Your task to perform on an android device: Empty the shopping cart on bestbuy. Image 0: 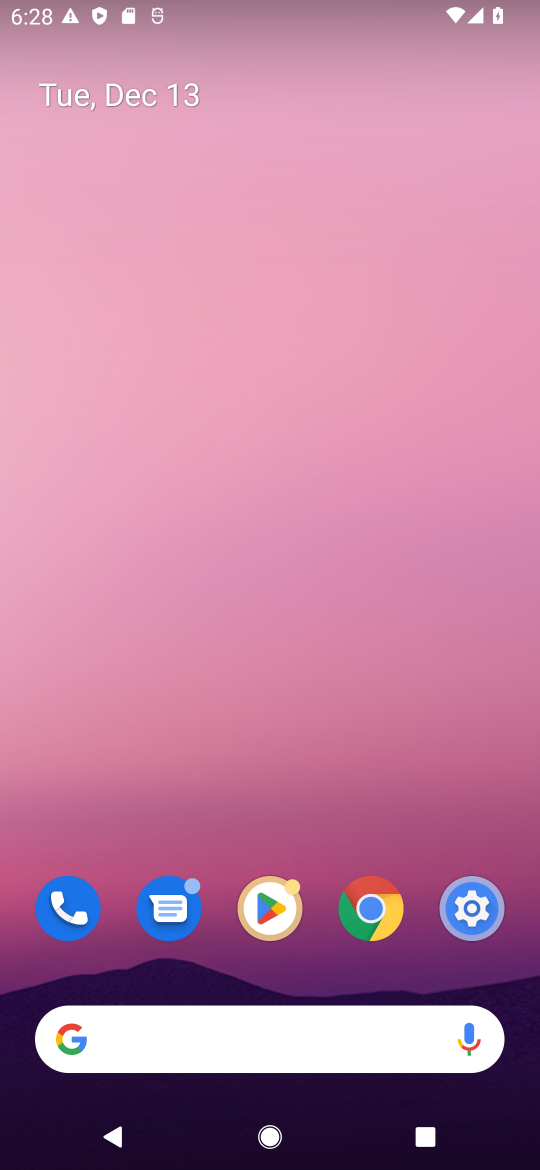
Step 0: press home button
Your task to perform on an android device: Empty the shopping cart on bestbuy. Image 1: 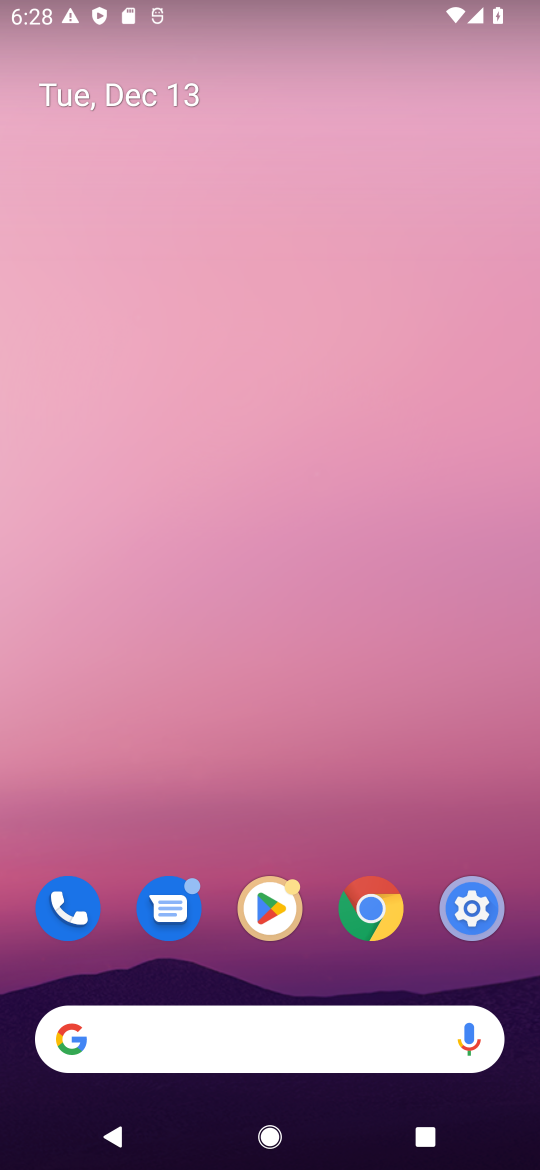
Step 1: click (100, 1037)
Your task to perform on an android device: Empty the shopping cart on bestbuy. Image 2: 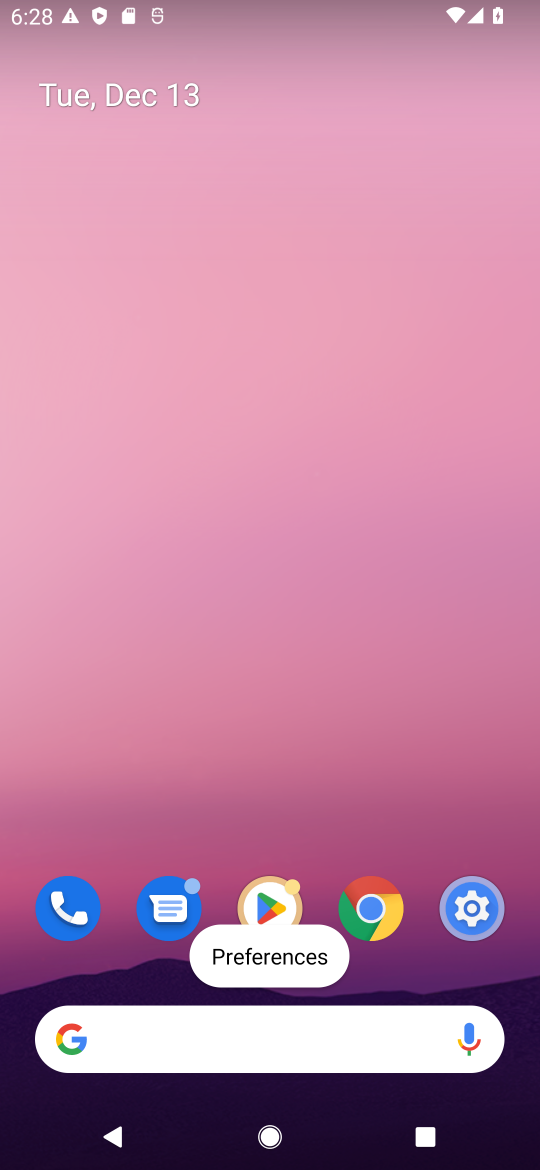
Step 2: click (102, 1031)
Your task to perform on an android device: Empty the shopping cart on bestbuy. Image 3: 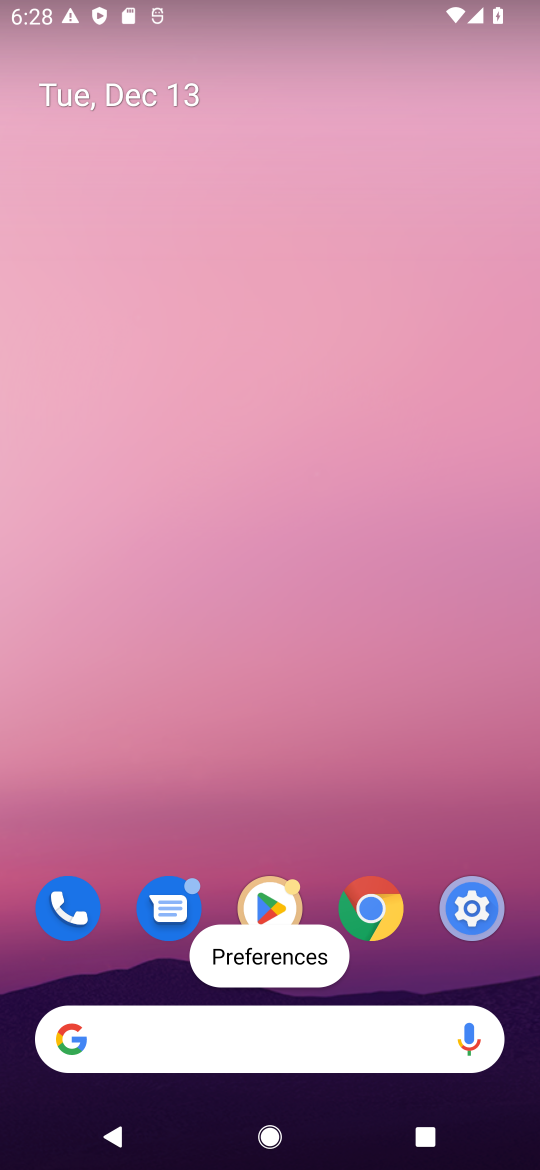
Step 3: click (113, 1037)
Your task to perform on an android device: Empty the shopping cart on bestbuy. Image 4: 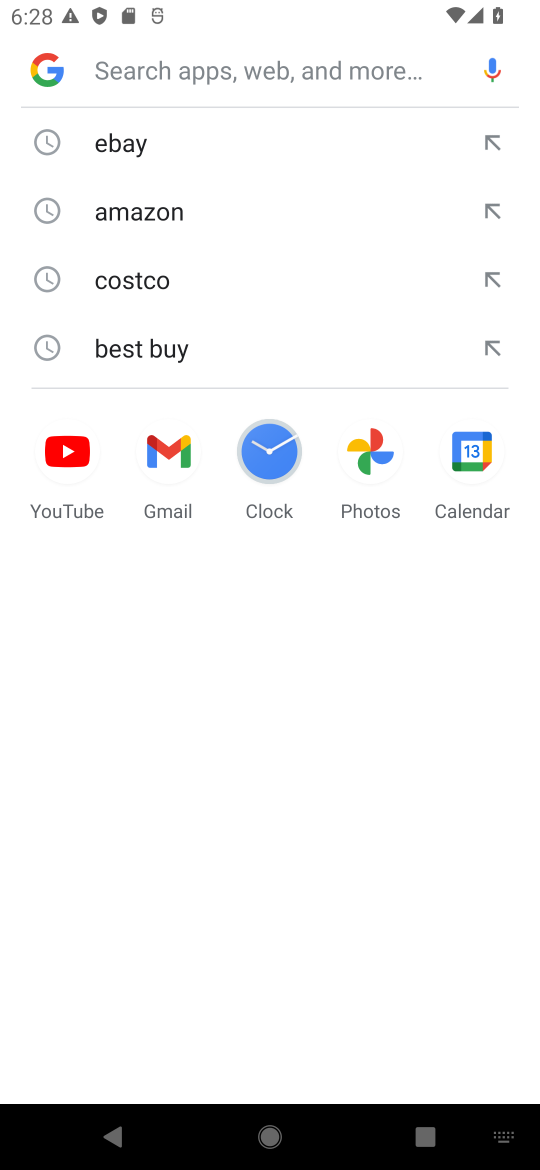
Step 4: type "bestbuy"
Your task to perform on an android device: Empty the shopping cart on bestbuy. Image 5: 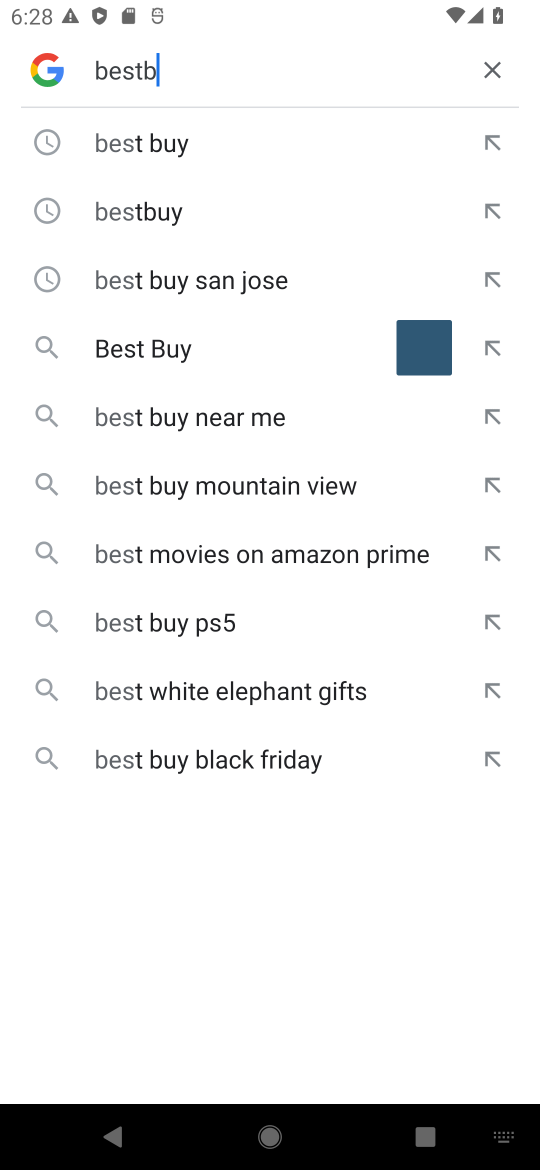
Step 5: press enter
Your task to perform on an android device: Empty the shopping cart on bestbuy. Image 6: 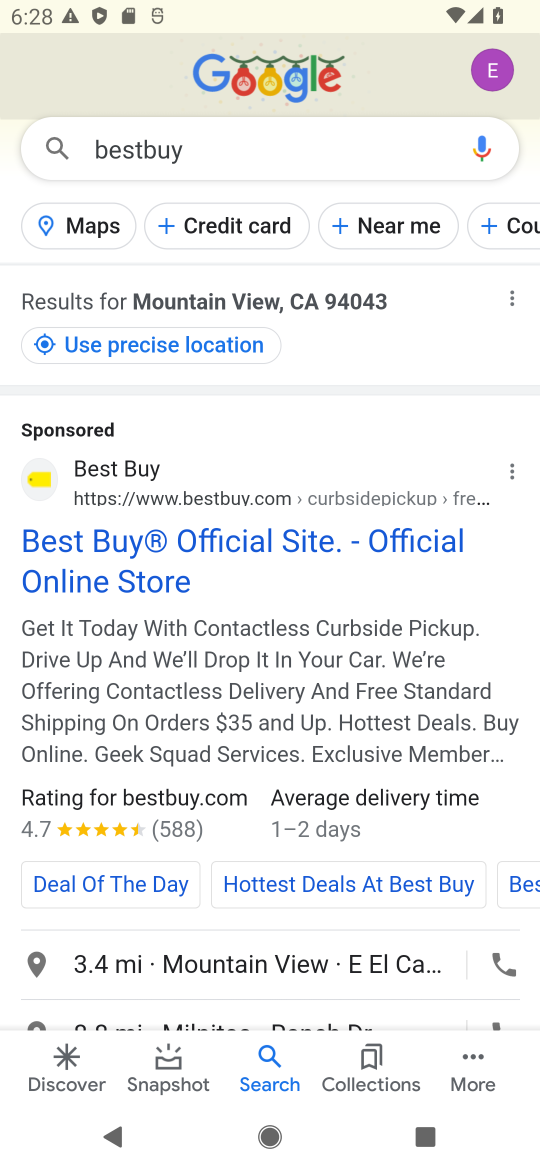
Step 6: click (126, 543)
Your task to perform on an android device: Empty the shopping cart on bestbuy. Image 7: 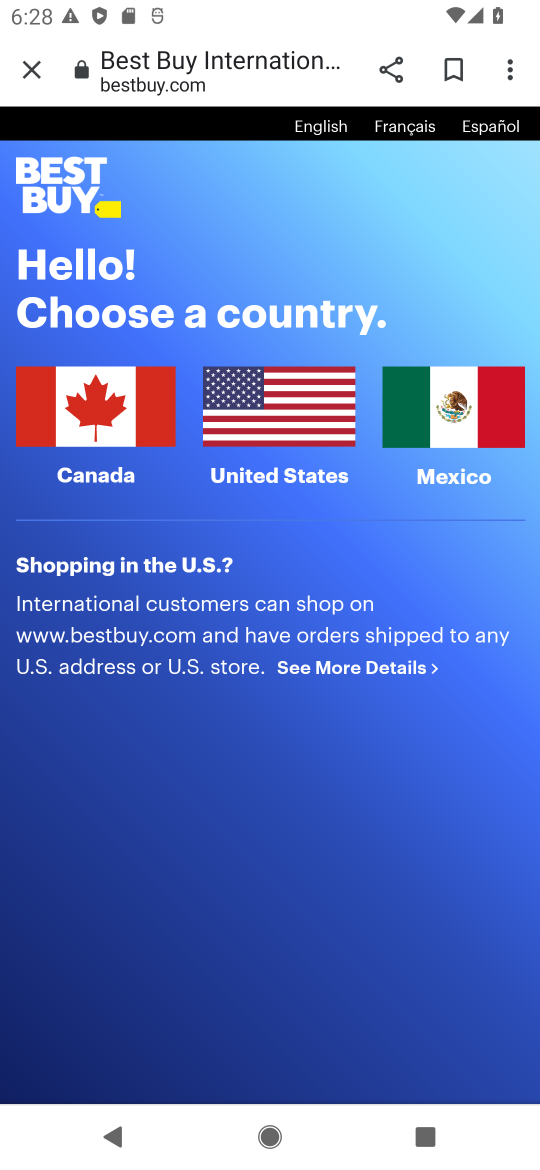
Step 7: click (83, 403)
Your task to perform on an android device: Empty the shopping cart on bestbuy. Image 8: 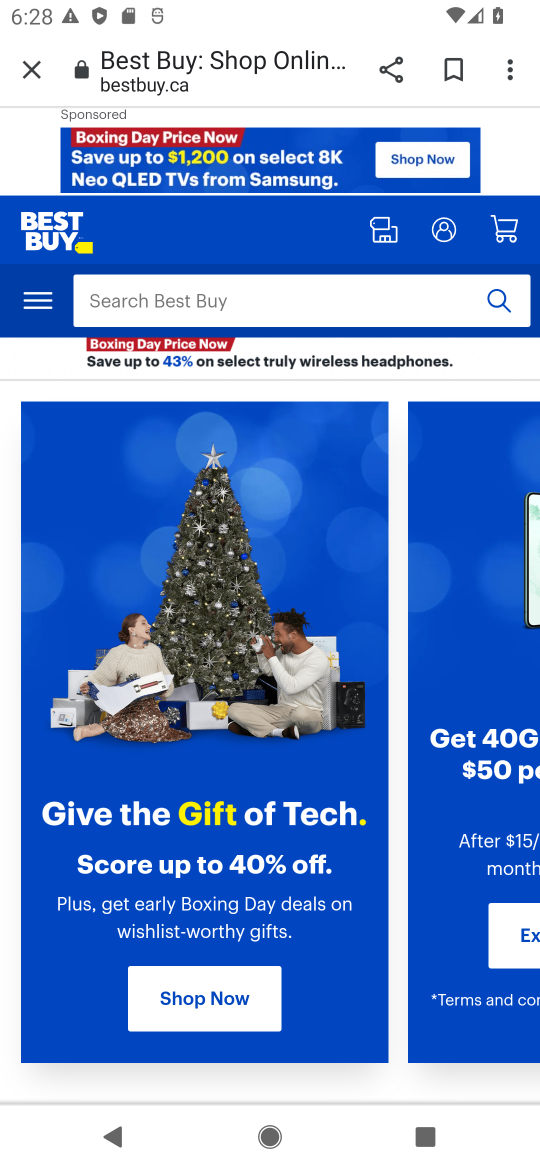
Step 8: click (501, 226)
Your task to perform on an android device: Empty the shopping cart on bestbuy. Image 9: 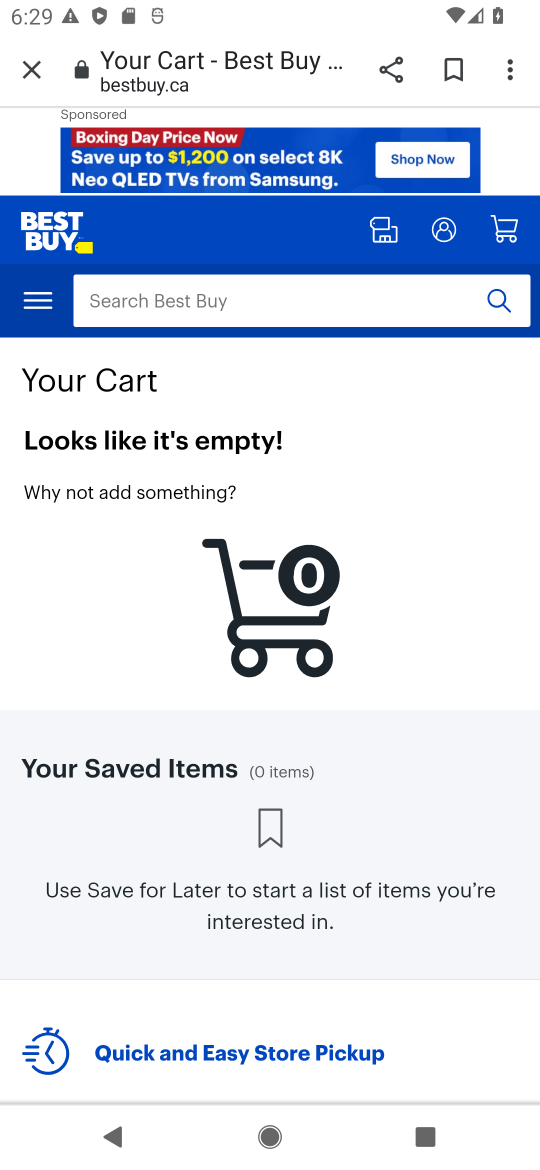
Step 9: task complete